Your task to perform on an android device: Open the calendar app, open the side menu, and click the "Day" option Image 0: 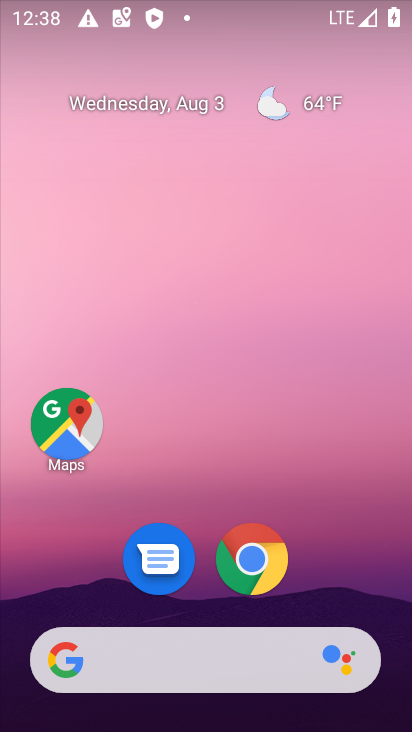
Step 0: drag from (211, 616) to (212, 62)
Your task to perform on an android device: Open the calendar app, open the side menu, and click the "Day" option Image 1: 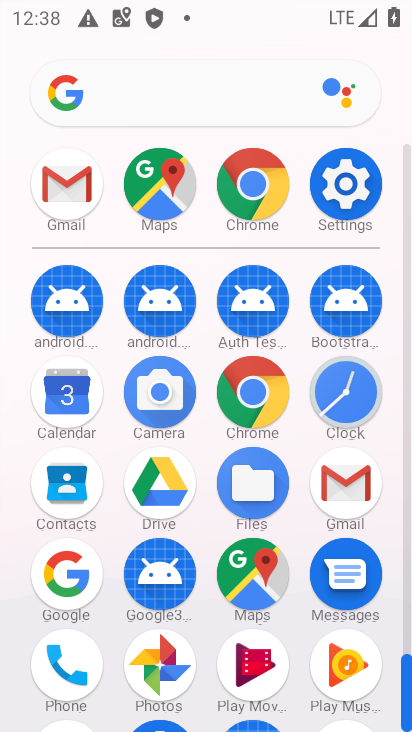
Step 1: click (69, 408)
Your task to perform on an android device: Open the calendar app, open the side menu, and click the "Day" option Image 2: 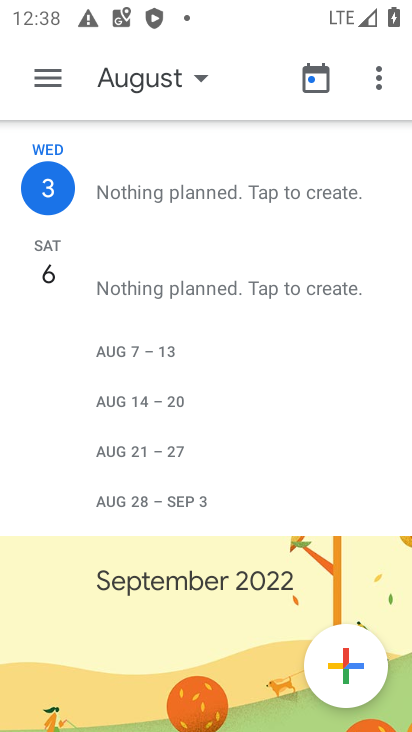
Step 2: click (50, 77)
Your task to perform on an android device: Open the calendar app, open the side menu, and click the "Day" option Image 3: 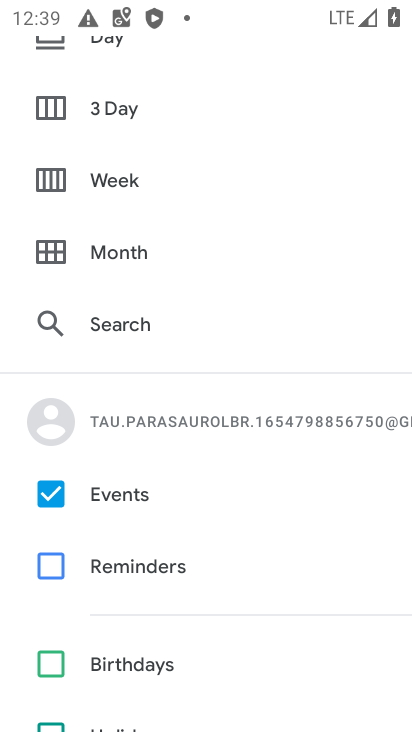
Step 3: drag from (184, 133) to (221, 620)
Your task to perform on an android device: Open the calendar app, open the side menu, and click the "Day" option Image 4: 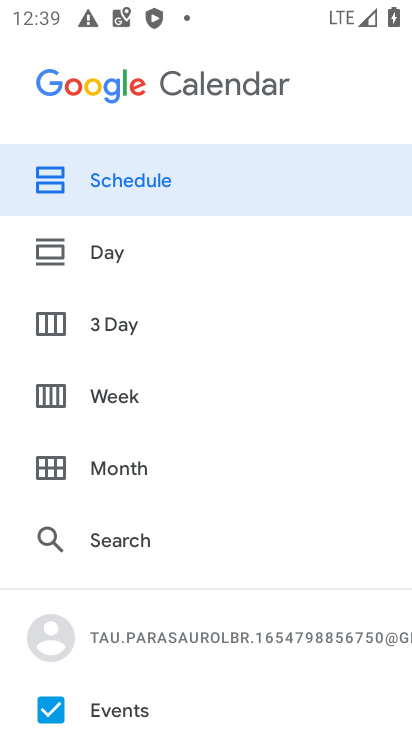
Step 4: click (103, 251)
Your task to perform on an android device: Open the calendar app, open the side menu, and click the "Day" option Image 5: 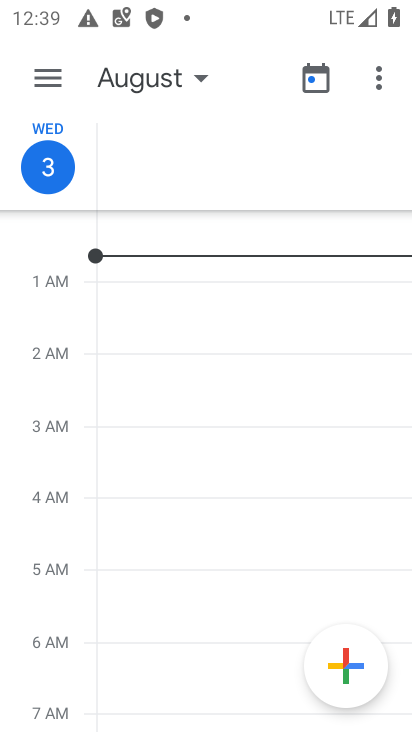
Step 5: task complete